Your task to perform on an android device: Open Youtube and go to the subscriptions tab Image 0: 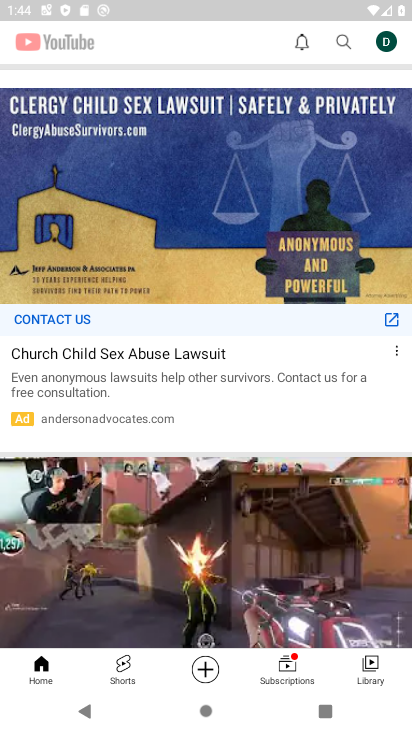
Step 0: drag from (180, 619) to (253, 104)
Your task to perform on an android device: Open Youtube and go to the subscriptions tab Image 1: 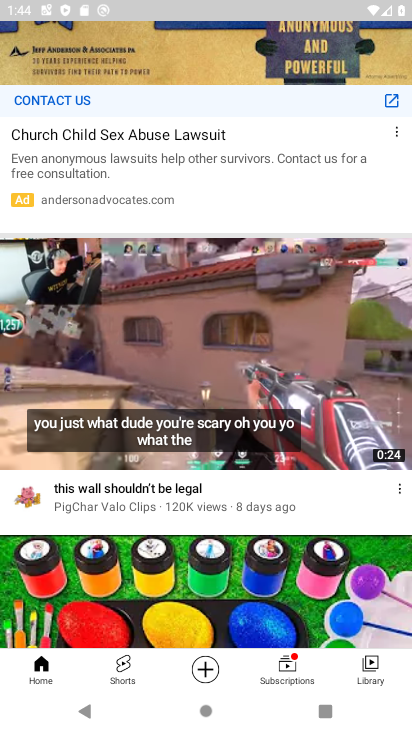
Step 1: drag from (201, 570) to (249, 156)
Your task to perform on an android device: Open Youtube and go to the subscriptions tab Image 2: 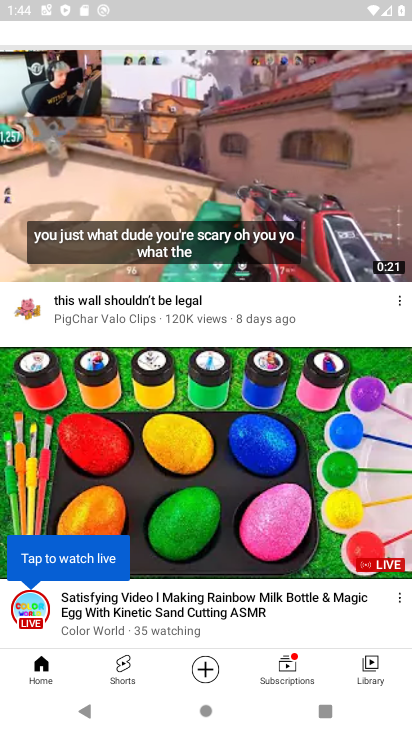
Step 2: drag from (253, 534) to (249, 106)
Your task to perform on an android device: Open Youtube and go to the subscriptions tab Image 3: 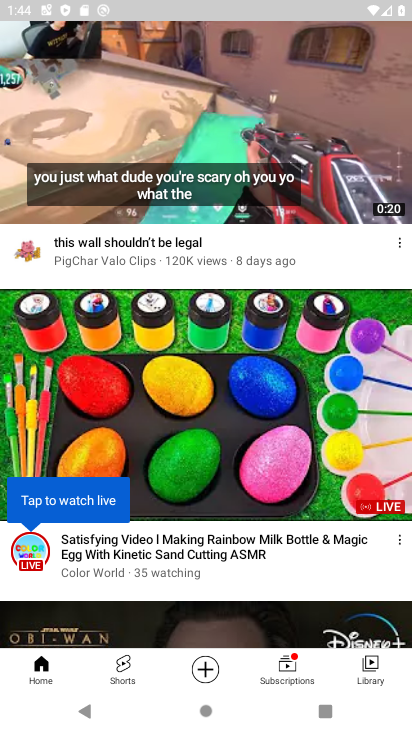
Step 3: drag from (236, 493) to (286, 114)
Your task to perform on an android device: Open Youtube and go to the subscriptions tab Image 4: 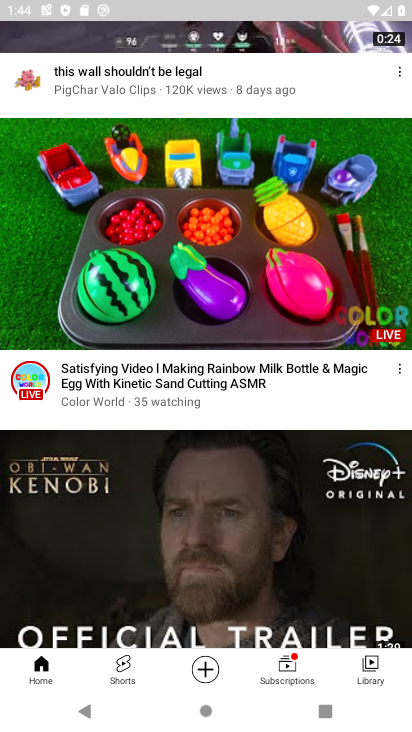
Step 4: drag from (210, 609) to (249, 213)
Your task to perform on an android device: Open Youtube and go to the subscriptions tab Image 5: 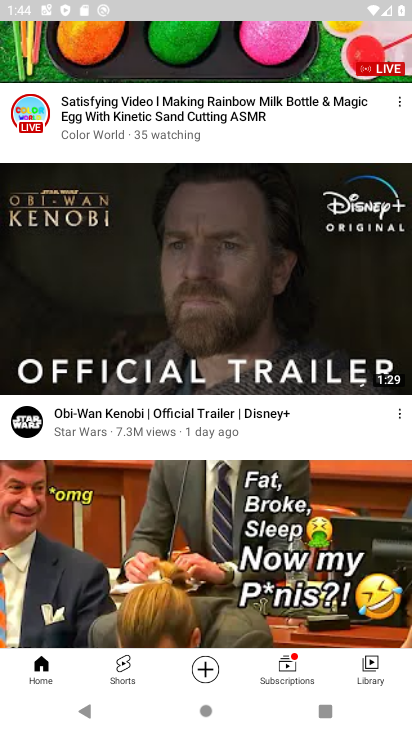
Step 5: drag from (242, 540) to (247, 243)
Your task to perform on an android device: Open Youtube and go to the subscriptions tab Image 6: 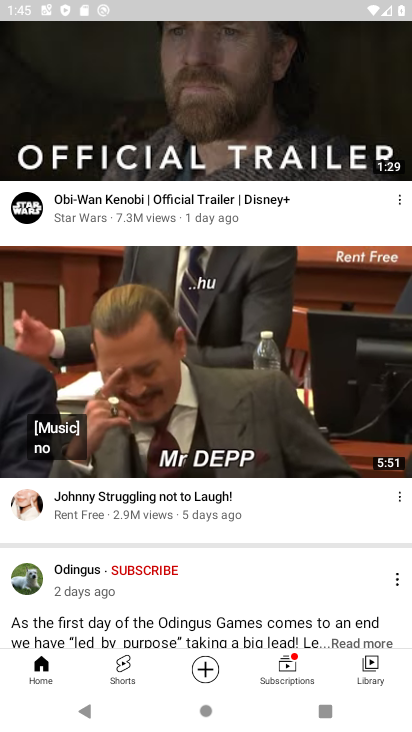
Step 6: drag from (187, 556) to (216, 316)
Your task to perform on an android device: Open Youtube and go to the subscriptions tab Image 7: 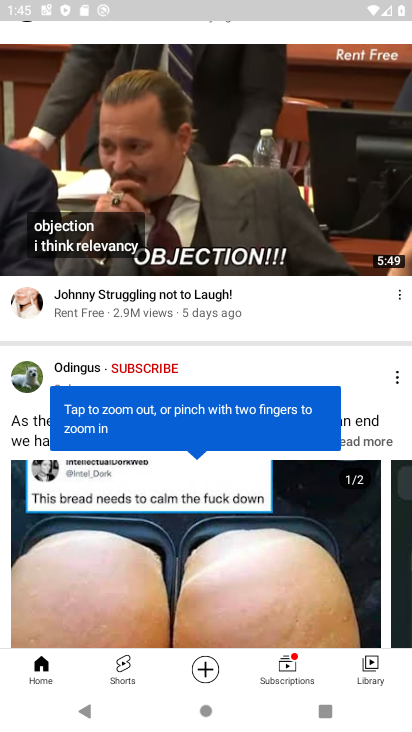
Step 7: drag from (219, 551) to (272, 151)
Your task to perform on an android device: Open Youtube and go to the subscriptions tab Image 8: 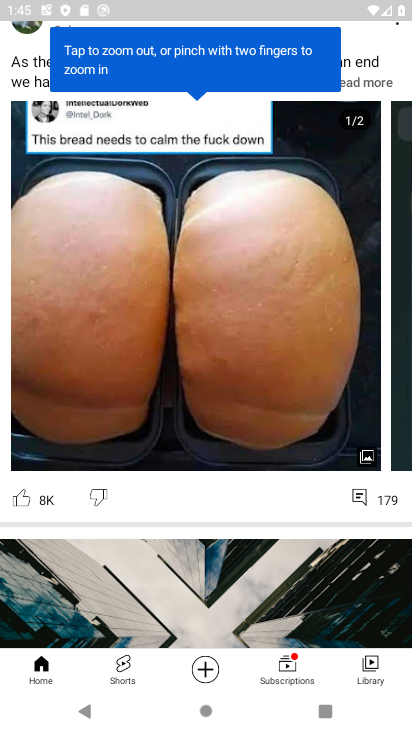
Step 8: drag from (179, 575) to (254, 144)
Your task to perform on an android device: Open Youtube and go to the subscriptions tab Image 9: 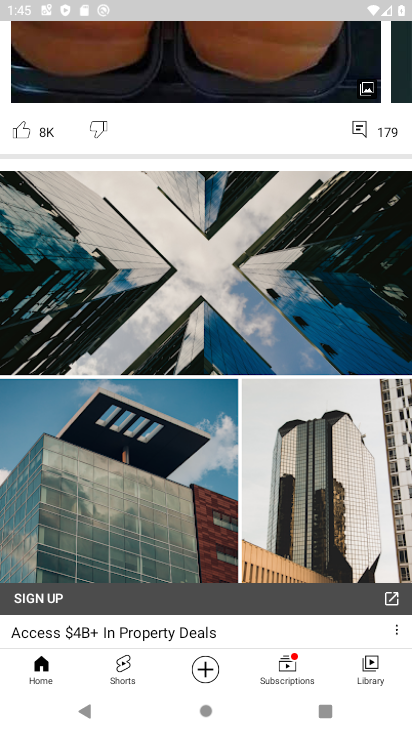
Step 9: drag from (201, 568) to (256, 223)
Your task to perform on an android device: Open Youtube and go to the subscriptions tab Image 10: 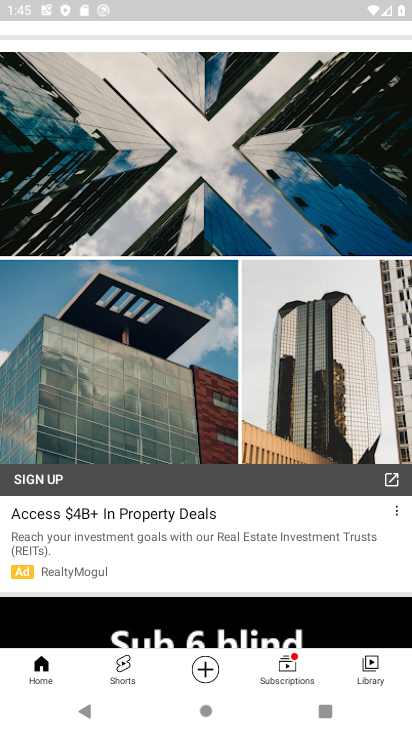
Step 10: drag from (216, 588) to (232, 223)
Your task to perform on an android device: Open Youtube and go to the subscriptions tab Image 11: 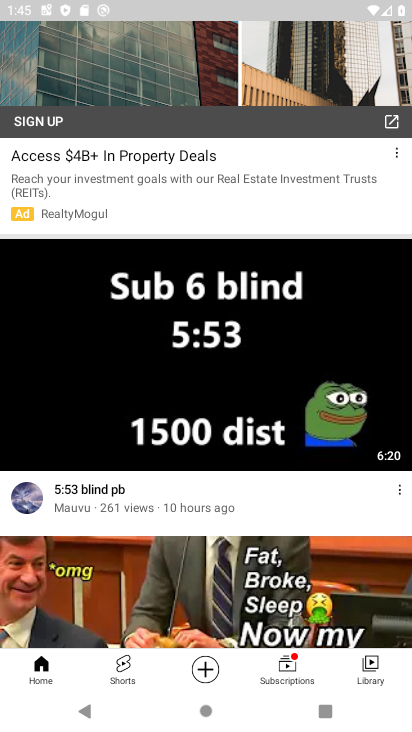
Step 11: drag from (186, 637) to (269, 190)
Your task to perform on an android device: Open Youtube and go to the subscriptions tab Image 12: 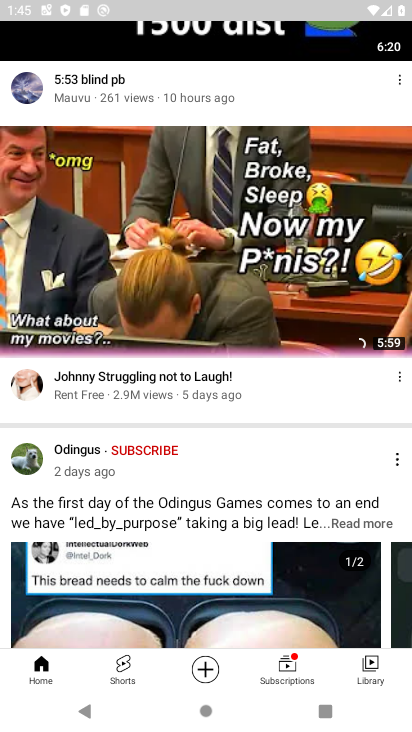
Step 12: drag from (235, 525) to (281, 203)
Your task to perform on an android device: Open Youtube and go to the subscriptions tab Image 13: 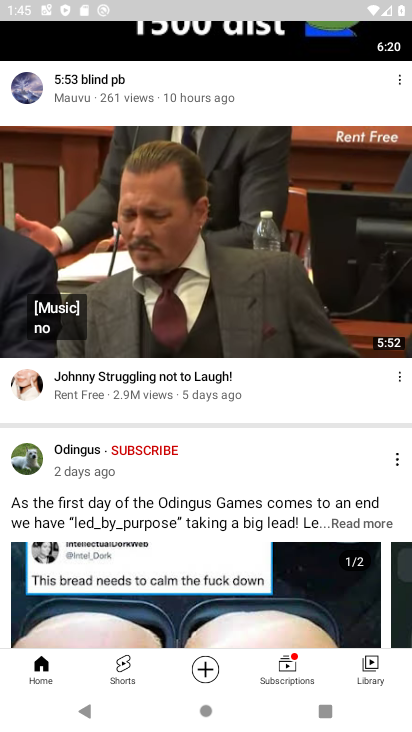
Step 13: drag from (247, 577) to (313, 131)
Your task to perform on an android device: Open Youtube and go to the subscriptions tab Image 14: 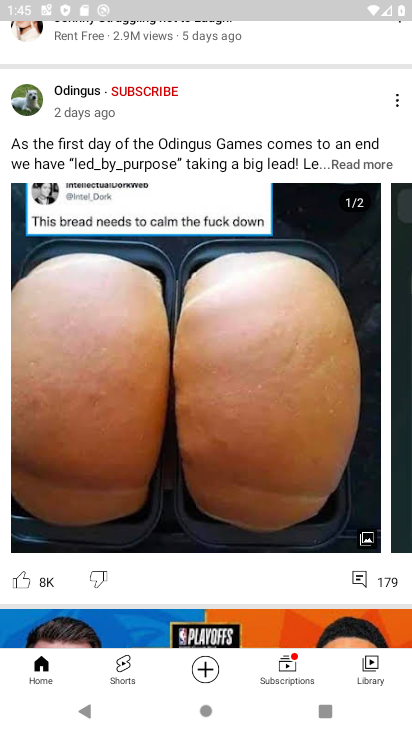
Step 14: drag from (224, 605) to (258, 213)
Your task to perform on an android device: Open Youtube and go to the subscriptions tab Image 15: 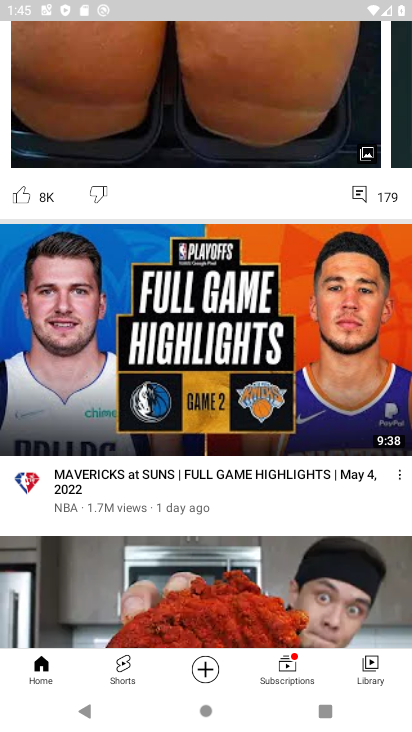
Step 15: drag from (256, 535) to (284, 208)
Your task to perform on an android device: Open Youtube and go to the subscriptions tab Image 16: 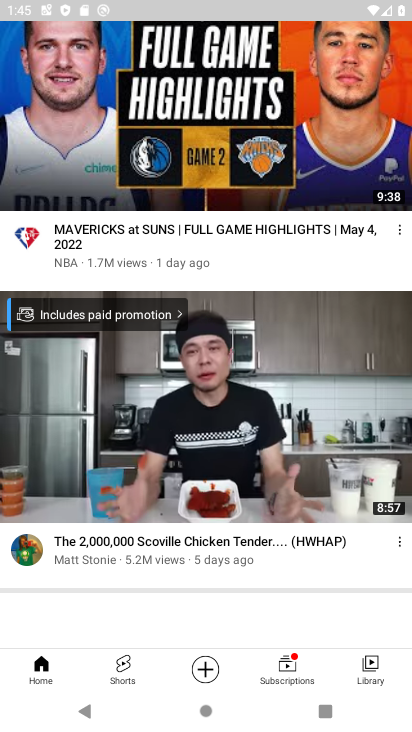
Step 16: click (359, 662)
Your task to perform on an android device: Open Youtube and go to the subscriptions tab Image 17: 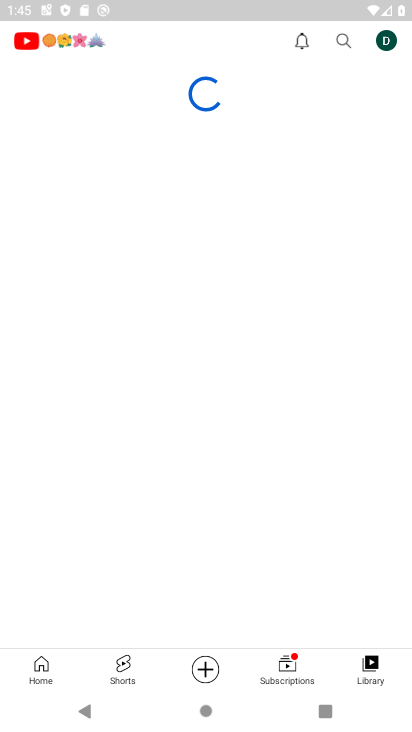
Step 17: click (279, 663)
Your task to perform on an android device: Open Youtube and go to the subscriptions tab Image 18: 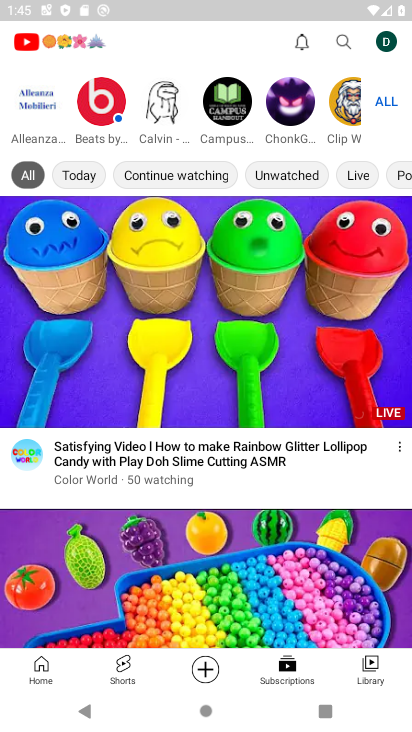
Step 18: task complete